Your task to perform on an android device: Go to Yahoo.com Image 0: 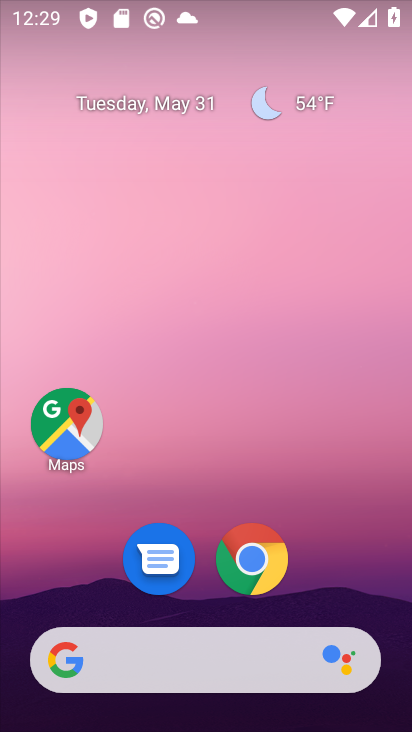
Step 0: press home button
Your task to perform on an android device: Go to Yahoo.com Image 1: 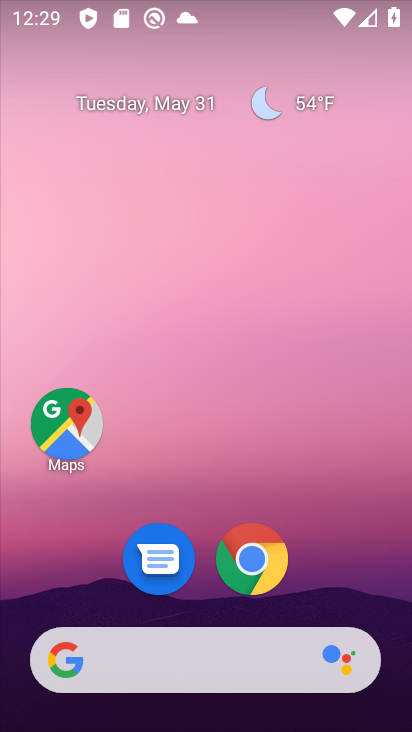
Step 1: click (272, 553)
Your task to perform on an android device: Go to Yahoo.com Image 2: 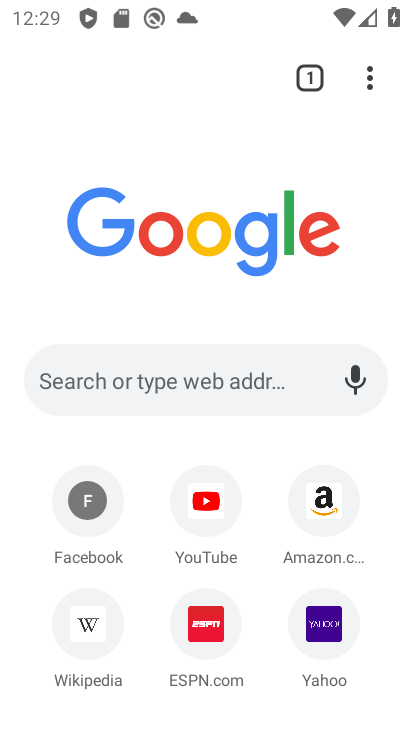
Step 2: click (320, 626)
Your task to perform on an android device: Go to Yahoo.com Image 3: 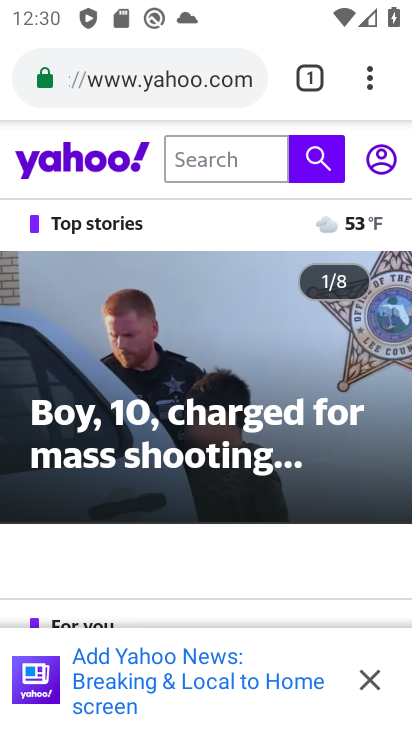
Step 3: task complete